Your task to perform on an android device: toggle pop-ups in chrome Image 0: 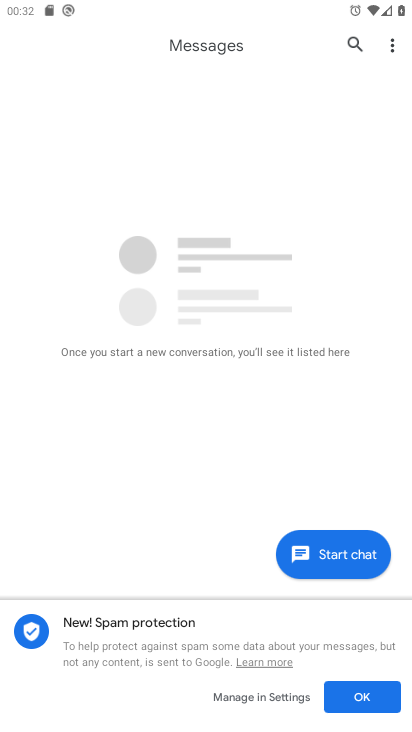
Step 0: press home button
Your task to perform on an android device: toggle pop-ups in chrome Image 1: 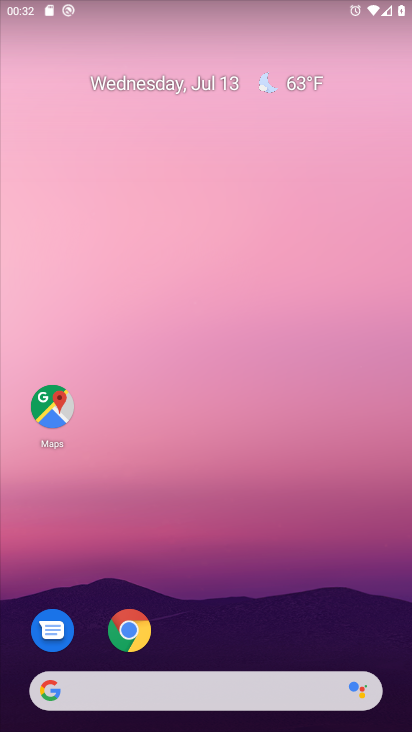
Step 1: click (143, 635)
Your task to perform on an android device: toggle pop-ups in chrome Image 2: 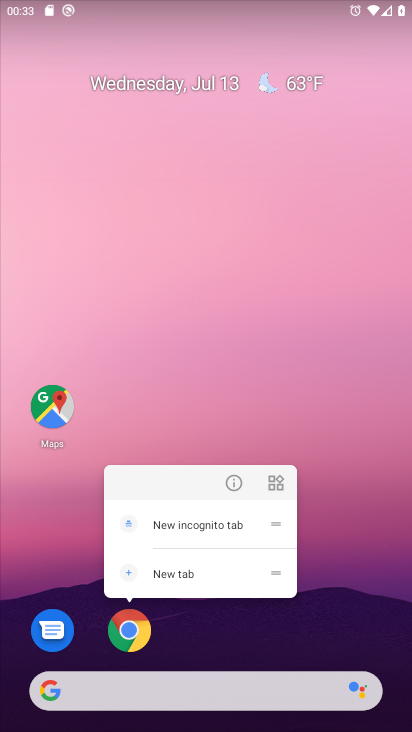
Step 2: click (138, 639)
Your task to perform on an android device: toggle pop-ups in chrome Image 3: 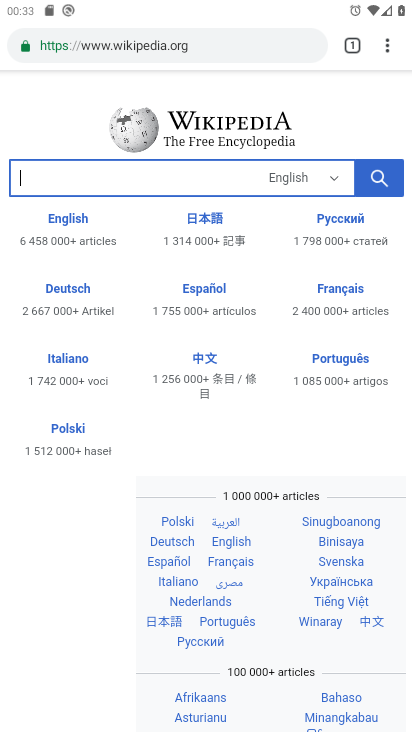
Step 3: drag from (389, 47) to (260, 544)
Your task to perform on an android device: toggle pop-ups in chrome Image 4: 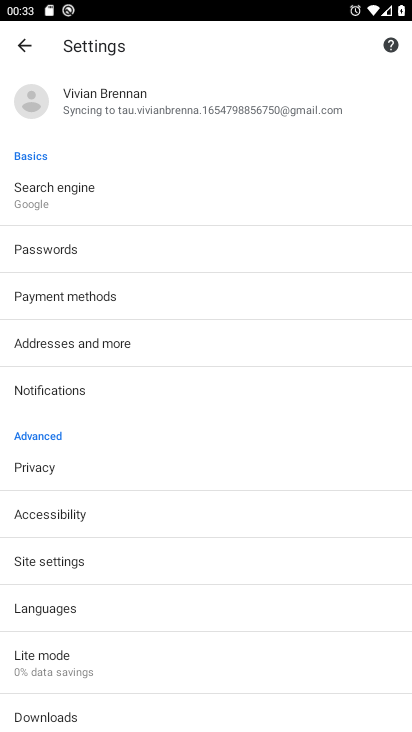
Step 4: click (85, 558)
Your task to perform on an android device: toggle pop-ups in chrome Image 5: 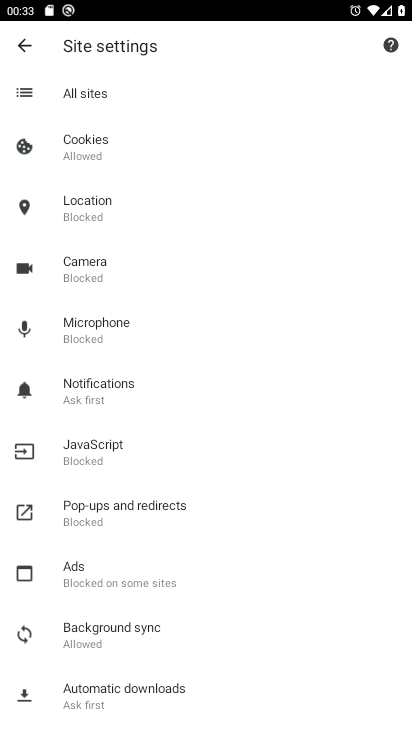
Step 5: click (178, 503)
Your task to perform on an android device: toggle pop-ups in chrome Image 6: 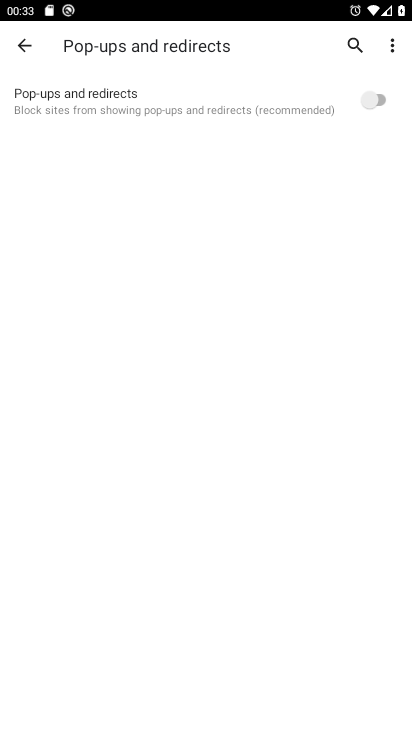
Step 6: click (379, 98)
Your task to perform on an android device: toggle pop-ups in chrome Image 7: 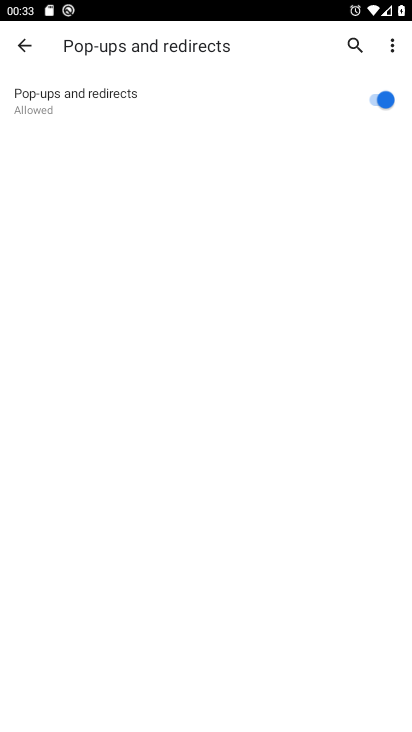
Step 7: task complete